Your task to perform on an android device: turn off javascript in the chrome app Image 0: 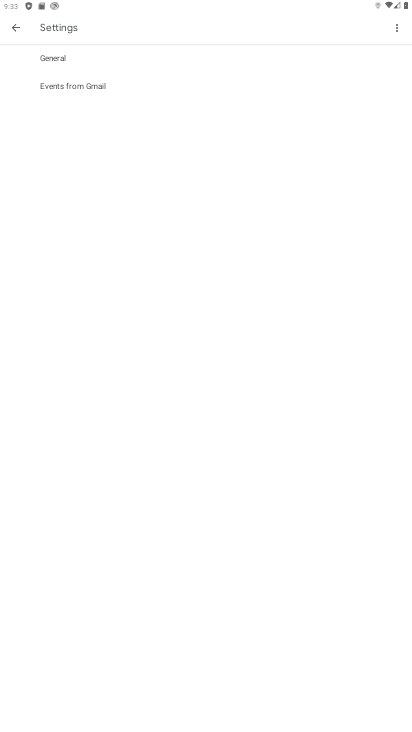
Step 0: press home button
Your task to perform on an android device: turn off javascript in the chrome app Image 1: 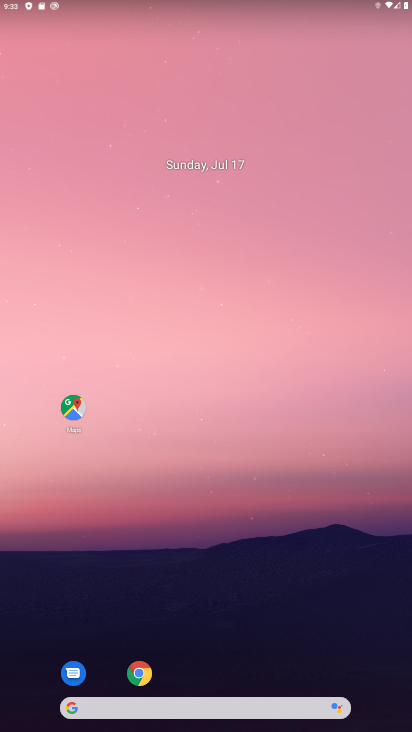
Step 1: click (140, 673)
Your task to perform on an android device: turn off javascript in the chrome app Image 2: 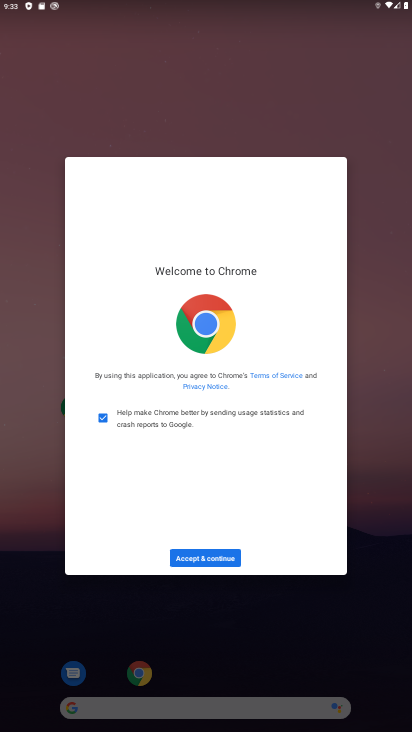
Step 2: click (213, 551)
Your task to perform on an android device: turn off javascript in the chrome app Image 3: 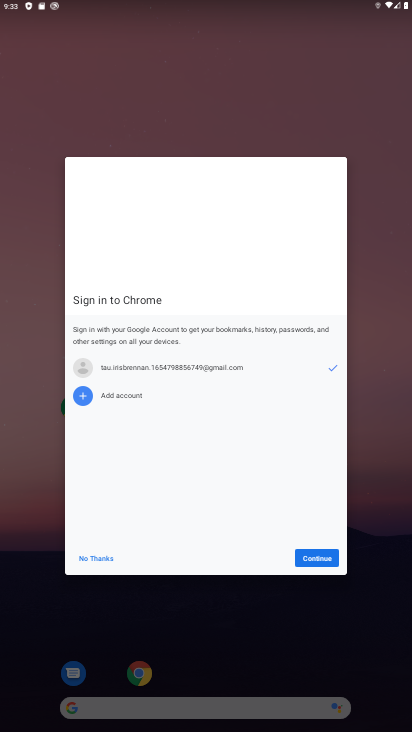
Step 3: click (313, 558)
Your task to perform on an android device: turn off javascript in the chrome app Image 4: 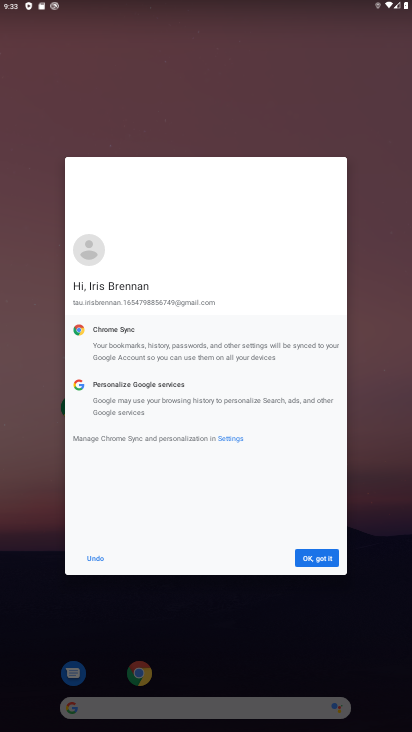
Step 4: click (313, 558)
Your task to perform on an android device: turn off javascript in the chrome app Image 5: 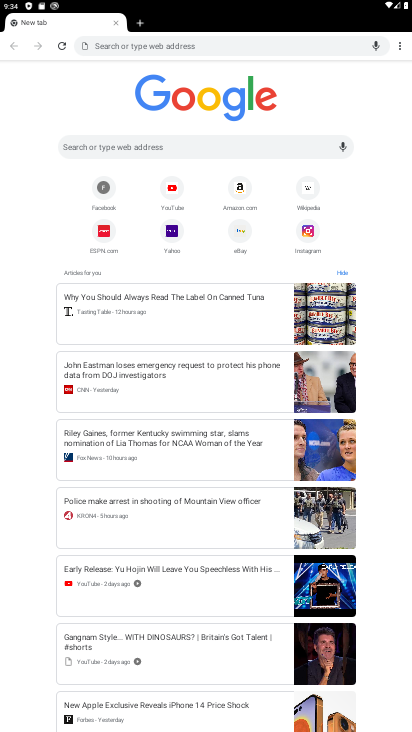
Step 5: click (394, 44)
Your task to perform on an android device: turn off javascript in the chrome app Image 6: 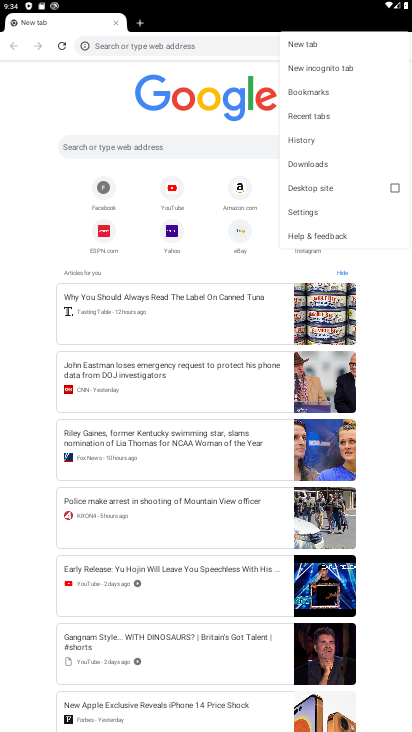
Step 6: click (330, 209)
Your task to perform on an android device: turn off javascript in the chrome app Image 7: 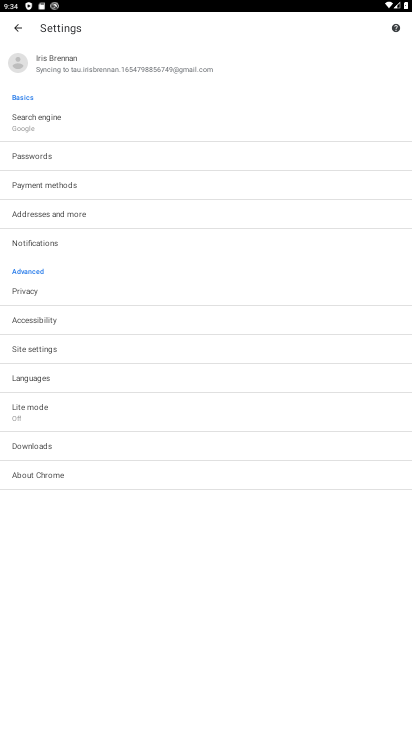
Step 7: click (48, 342)
Your task to perform on an android device: turn off javascript in the chrome app Image 8: 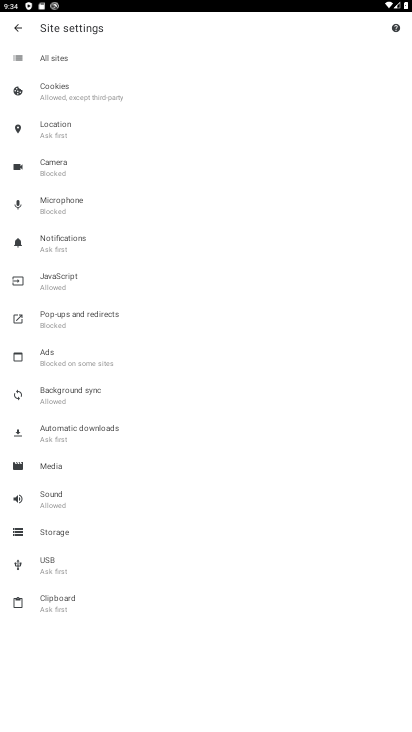
Step 8: click (72, 264)
Your task to perform on an android device: turn off javascript in the chrome app Image 9: 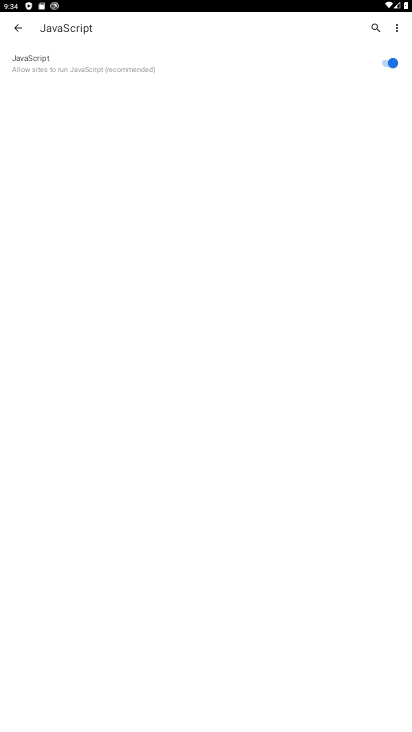
Step 9: click (395, 66)
Your task to perform on an android device: turn off javascript in the chrome app Image 10: 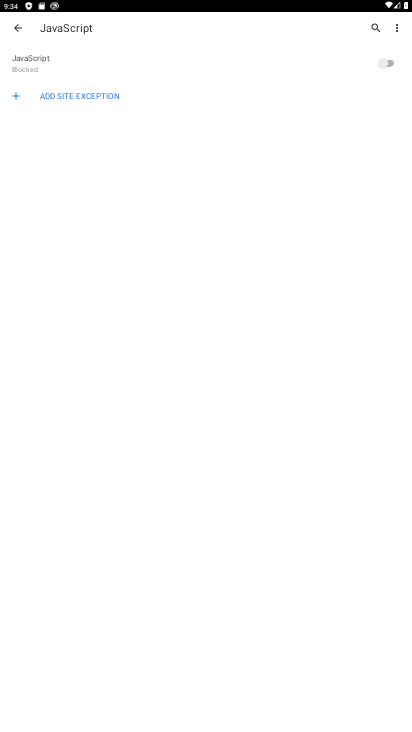
Step 10: task complete